Your task to perform on an android device: Open settings on Google Maps Image 0: 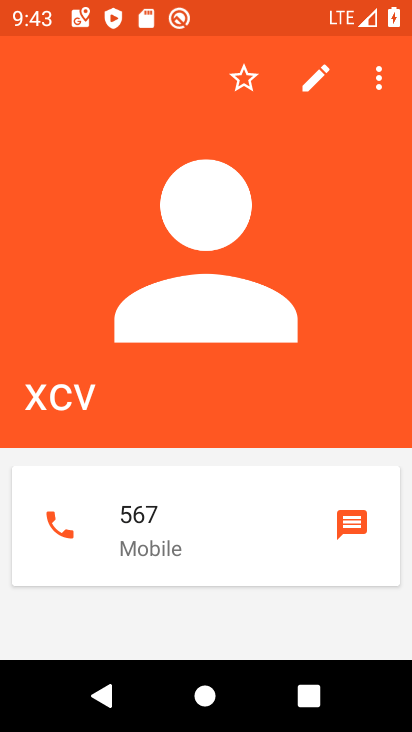
Step 0: press home button
Your task to perform on an android device: Open settings on Google Maps Image 1: 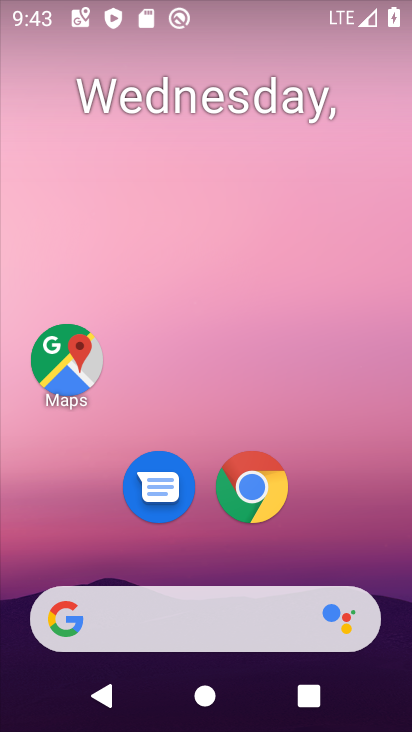
Step 1: drag from (335, 501) to (241, 67)
Your task to perform on an android device: Open settings on Google Maps Image 2: 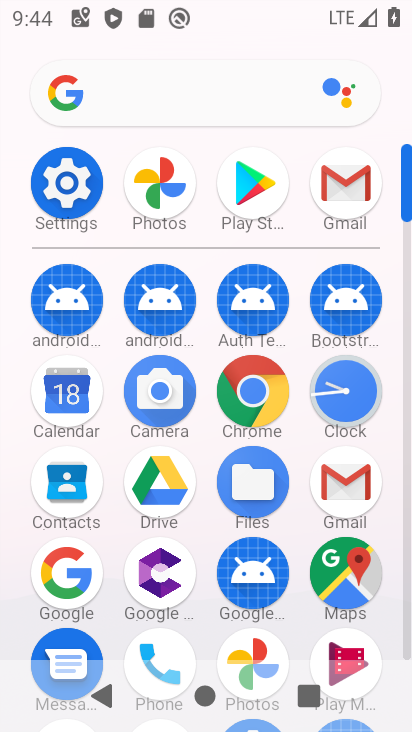
Step 2: click (331, 567)
Your task to perform on an android device: Open settings on Google Maps Image 3: 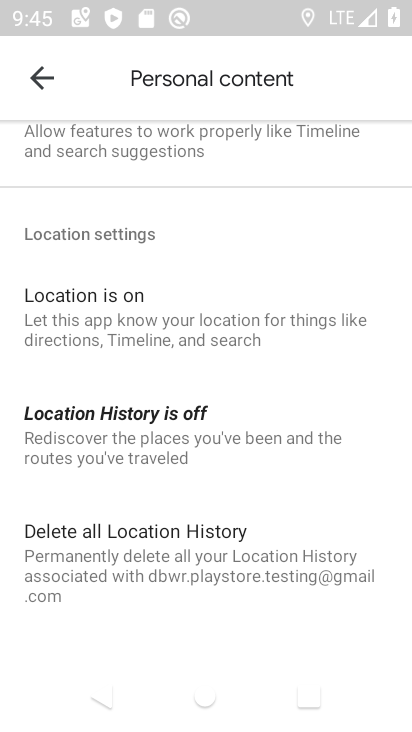
Step 3: click (43, 80)
Your task to perform on an android device: Open settings on Google Maps Image 4: 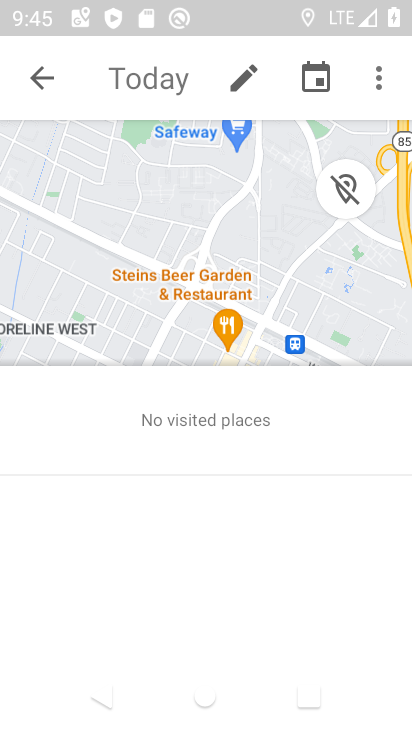
Step 4: click (43, 80)
Your task to perform on an android device: Open settings on Google Maps Image 5: 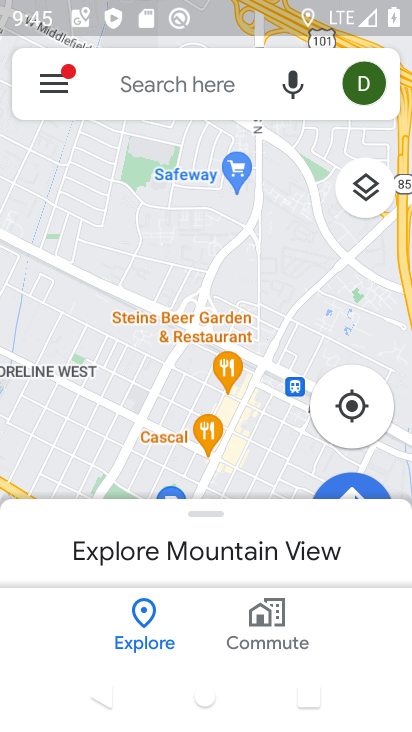
Step 5: click (46, 77)
Your task to perform on an android device: Open settings on Google Maps Image 6: 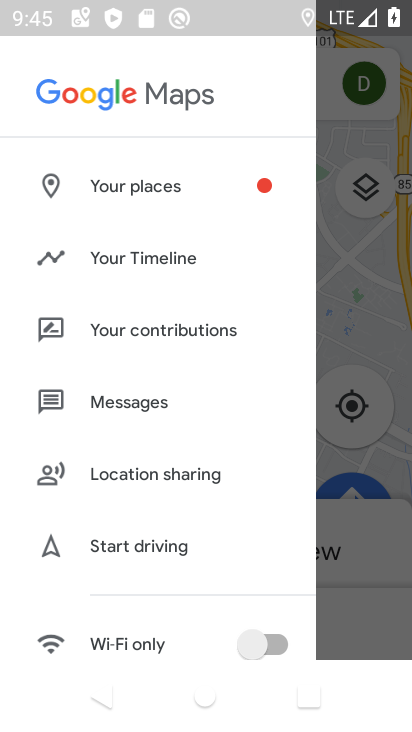
Step 6: drag from (176, 601) to (161, 318)
Your task to perform on an android device: Open settings on Google Maps Image 7: 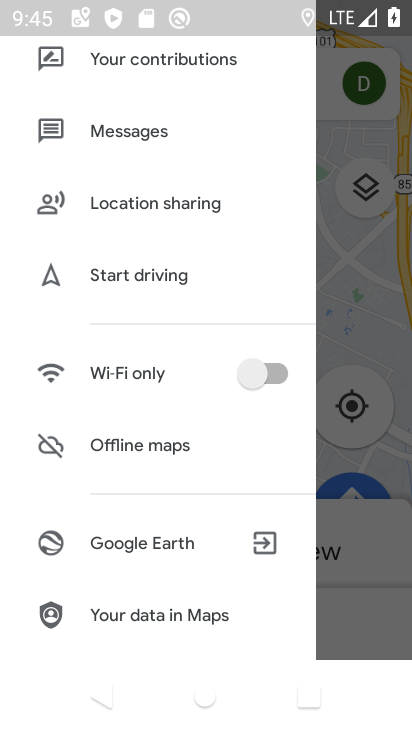
Step 7: drag from (142, 498) to (145, 231)
Your task to perform on an android device: Open settings on Google Maps Image 8: 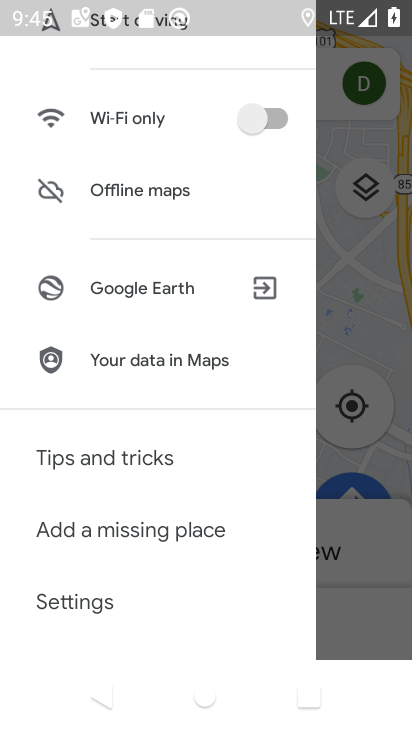
Step 8: drag from (110, 490) to (96, 198)
Your task to perform on an android device: Open settings on Google Maps Image 9: 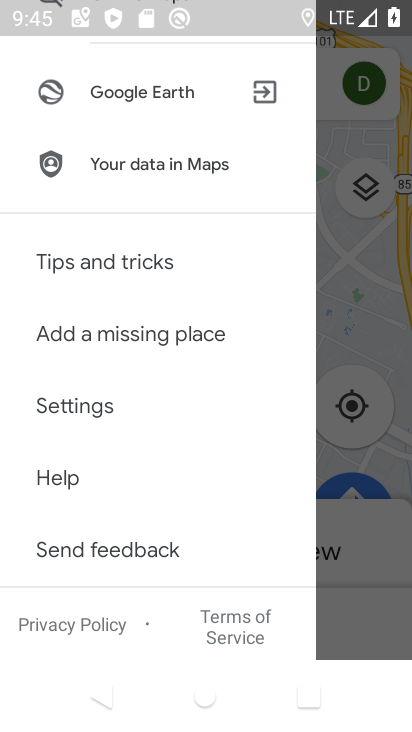
Step 9: click (75, 400)
Your task to perform on an android device: Open settings on Google Maps Image 10: 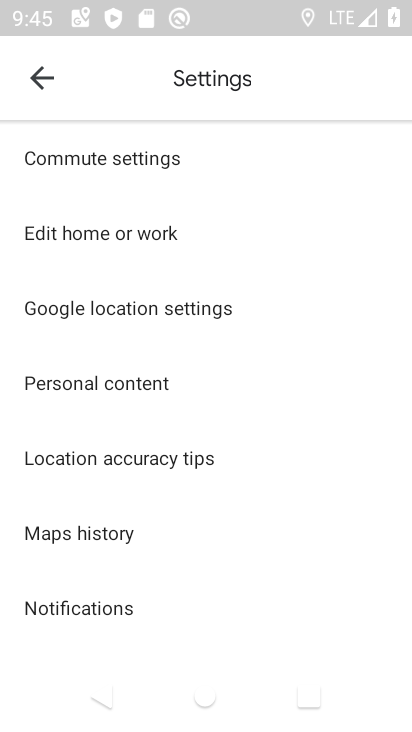
Step 10: task complete